Your task to perform on an android device: snooze an email in the gmail app Image 0: 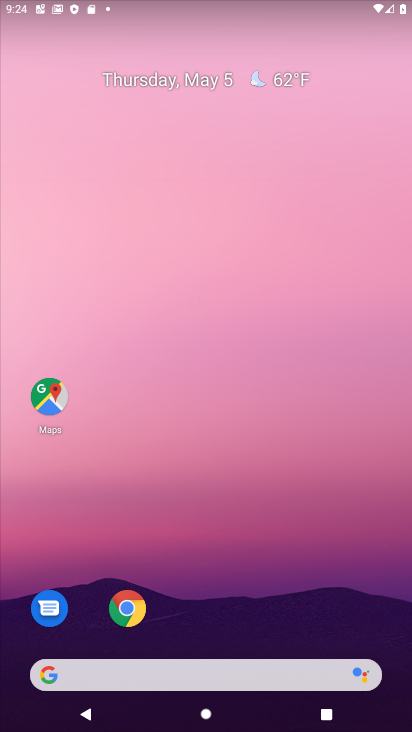
Step 0: drag from (311, 403) to (289, 61)
Your task to perform on an android device: snooze an email in the gmail app Image 1: 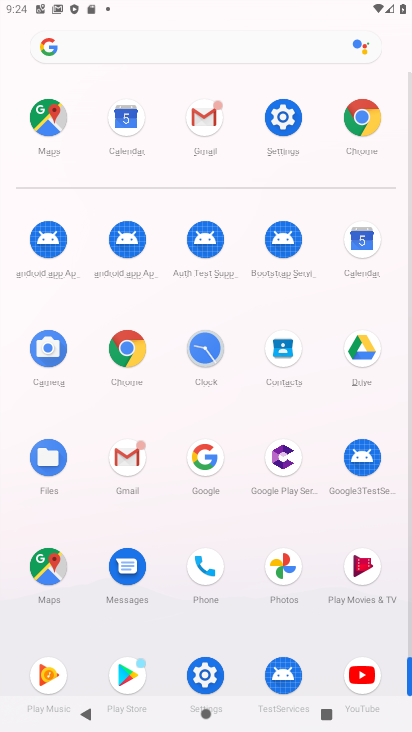
Step 1: drag from (3, 534) to (0, 269)
Your task to perform on an android device: snooze an email in the gmail app Image 2: 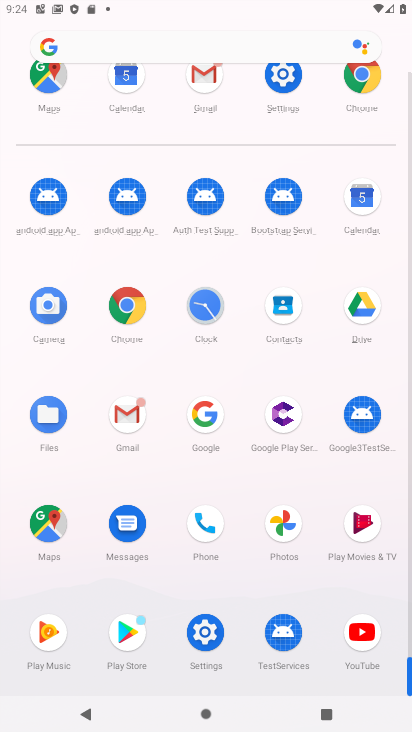
Step 2: click (124, 409)
Your task to perform on an android device: snooze an email in the gmail app Image 3: 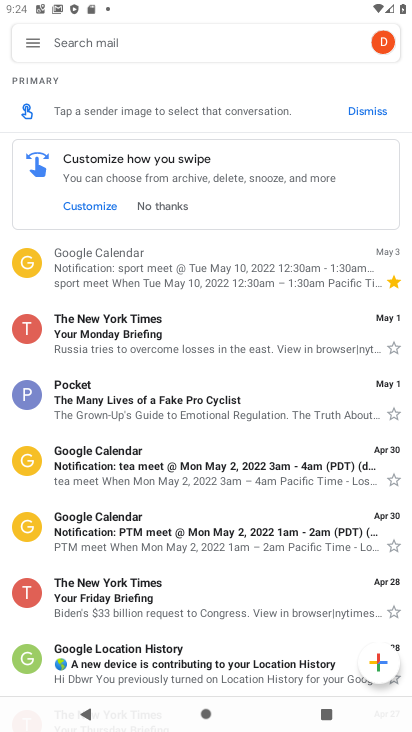
Step 3: click (188, 327)
Your task to perform on an android device: snooze an email in the gmail app Image 4: 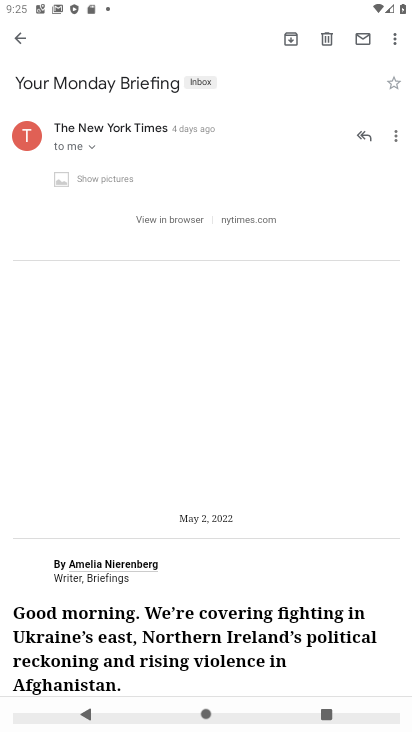
Step 4: drag from (392, 139) to (93, 380)
Your task to perform on an android device: snooze an email in the gmail app Image 5: 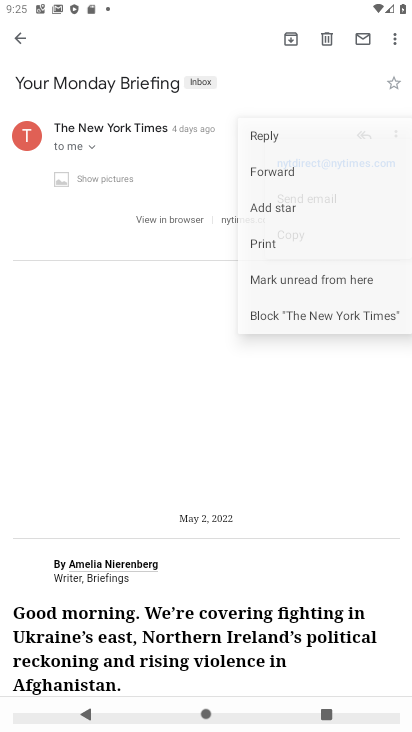
Step 5: click (59, 371)
Your task to perform on an android device: snooze an email in the gmail app Image 6: 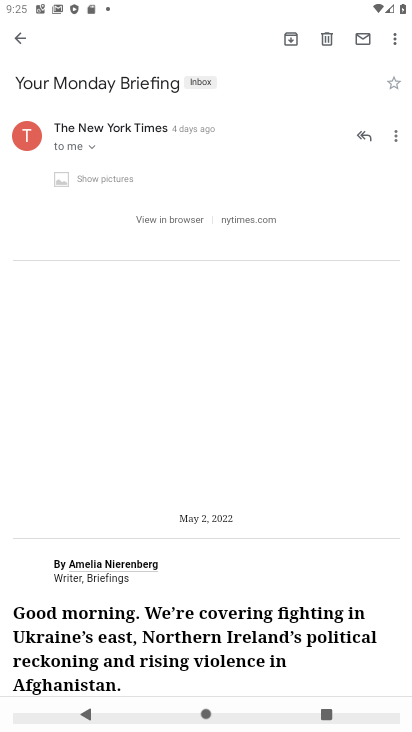
Step 6: click (395, 44)
Your task to perform on an android device: snooze an email in the gmail app Image 7: 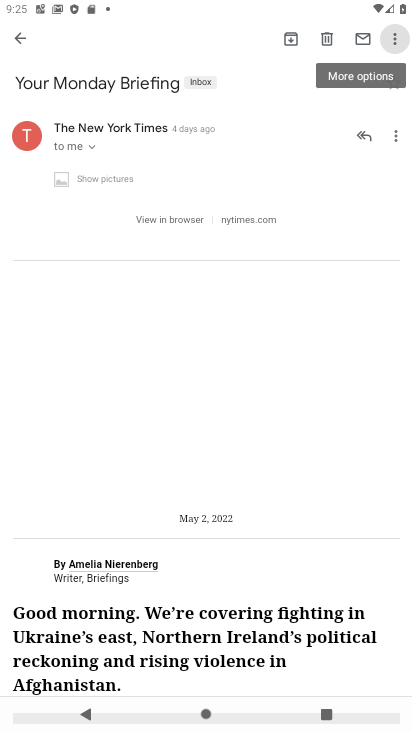
Step 7: click (395, 44)
Your task to perform on an android device: snooze an email in the gmail app Image 8: 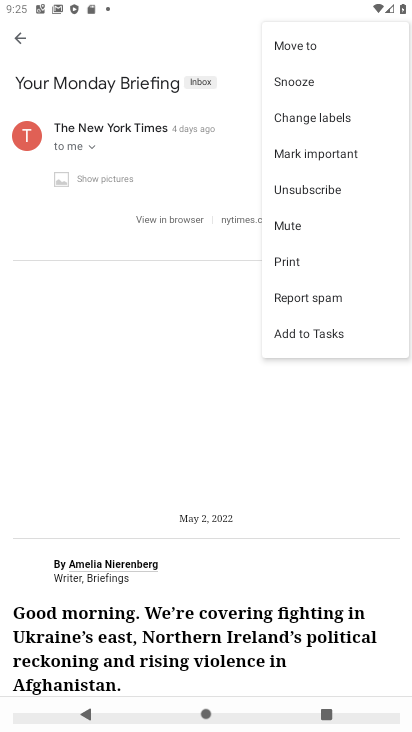
Step 8: click (329, 79)
Your task to perform on an android device: snooze an email in the gmail app Image 9: 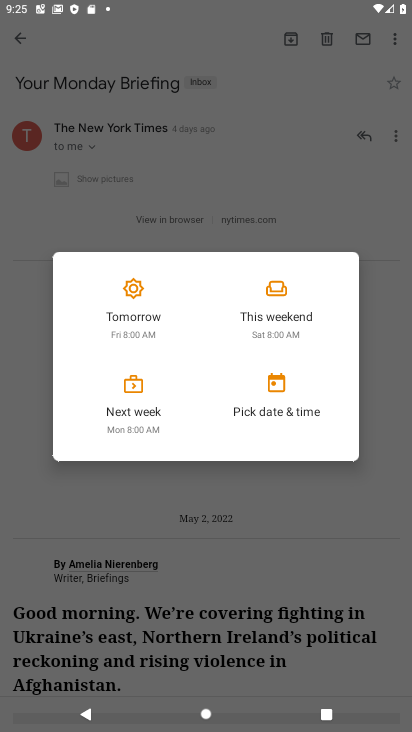
Step 9: click (134, 296)
Your task to perform on an android device: snooze an email in the gmail app Image 10: 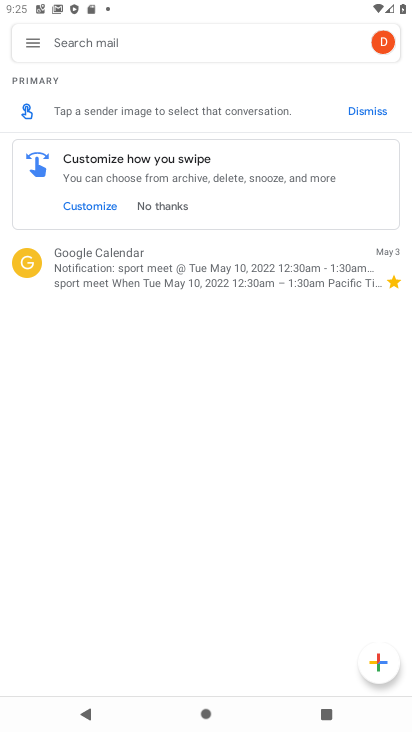
Step 10: task complete